Your task to perform on an android device: Search for Italian restaurants on Maps Image 0: 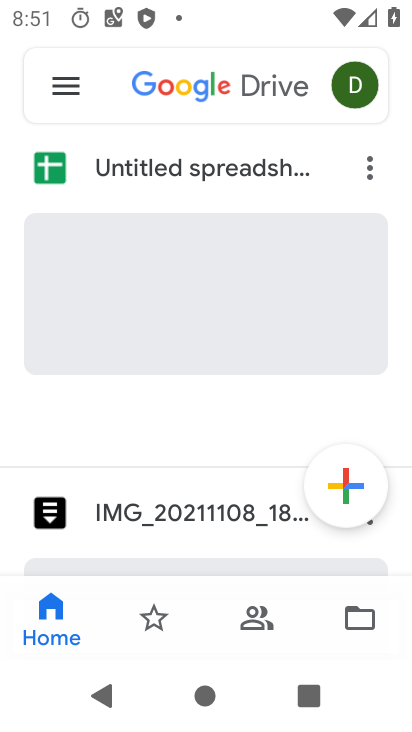
Step 0: press home button
Your task to perform on an android device: Search for Italian restaurants on Maps Image 1: 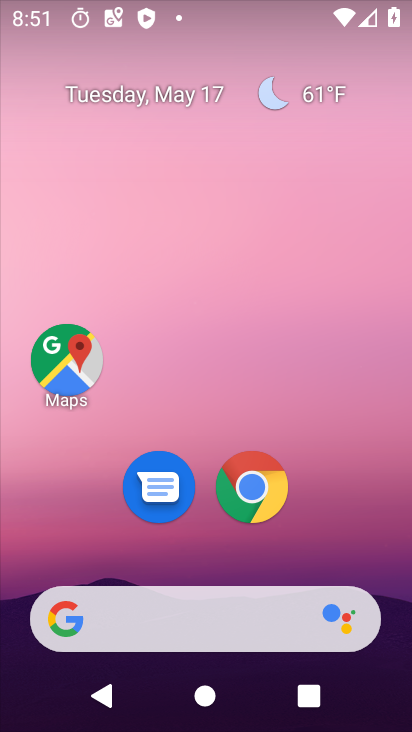
Step 1: click (58, 368)
Your task to perform on an android device: Search for Italian restaurants on Maps Image 2: 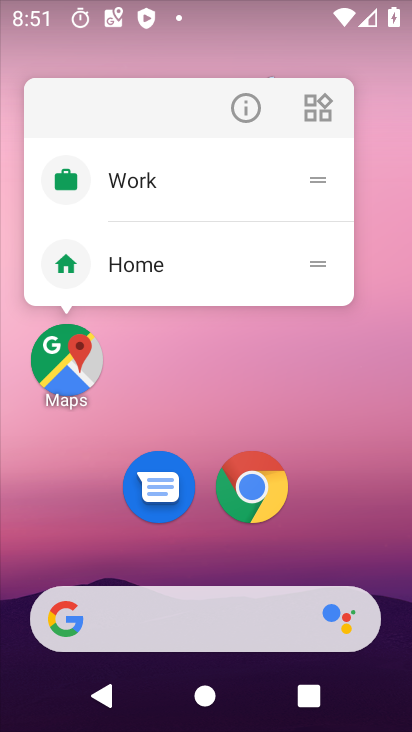
Step 2: click (57, 367)
Your task to perform on an android device: Search for Italian restaurants on Maps Image 3: 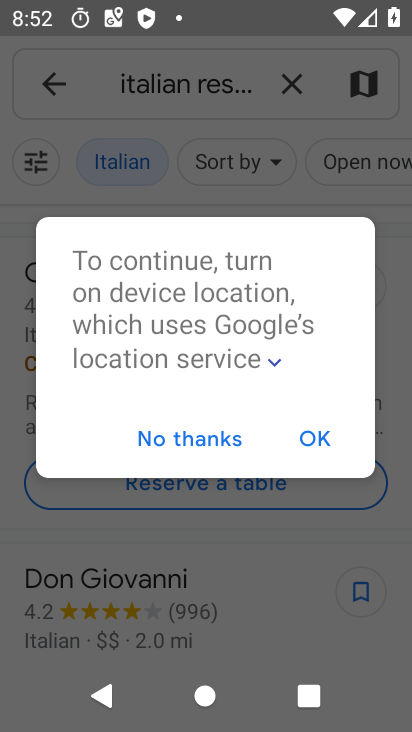
Step 3: click (315, 437)
Your task to perform on an android device: Search for Italian restaurants on Maps Image 4: 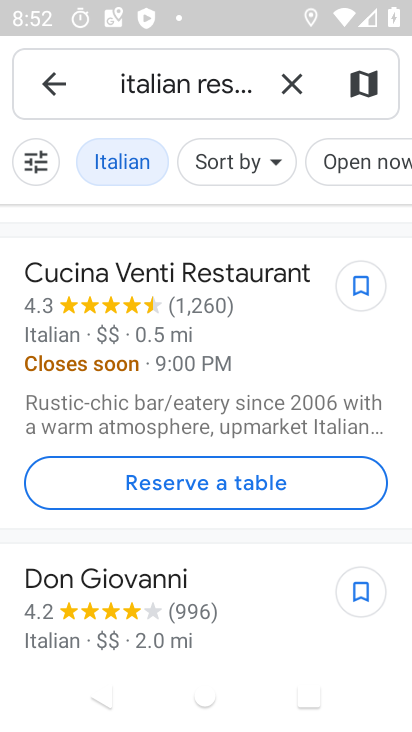
Step 4: task complete